Your task to perform on an android device: Go to wifi settings Image 0: 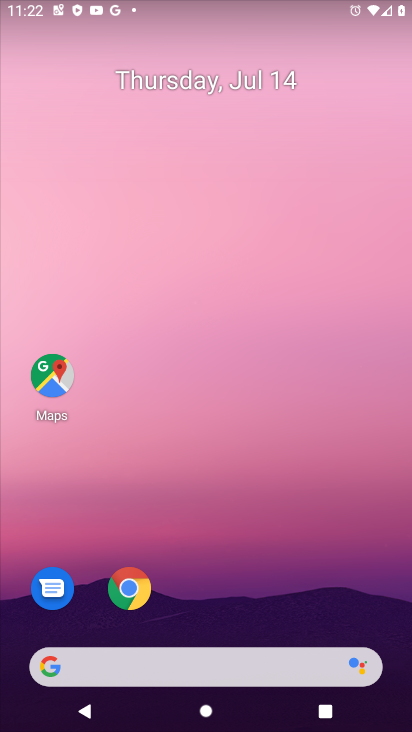
Step 0: press home button
Your task to perform on an android device: Go to wifi settings Image 1: 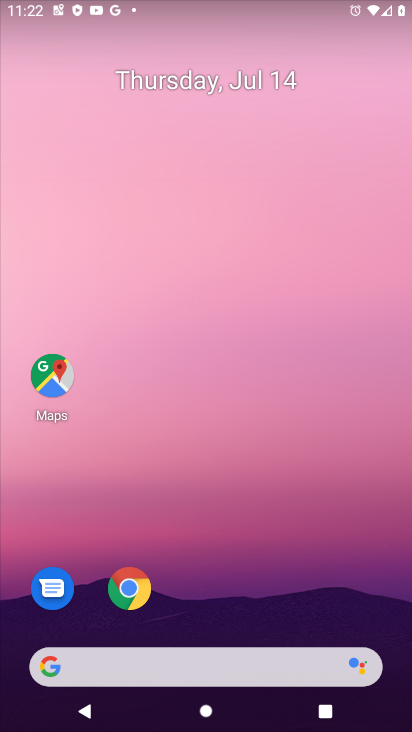
Step 1: drag from (324, 0) to (305, 634)
Your task to perform on an android device: Go to wifi settings Image 2: 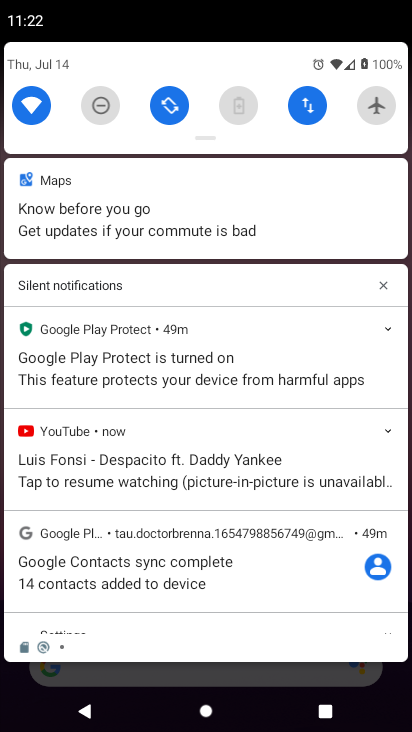
Step 2: click (25, 91)
Your task to perform on an android device: Go to wifi settings Image 3: 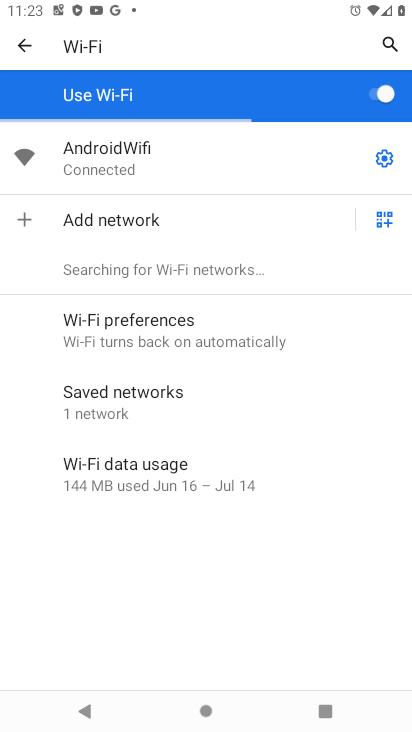
Step 3: task complete